Your task to perform on an android device: turn on priority inbox in the gmail app Image 0: 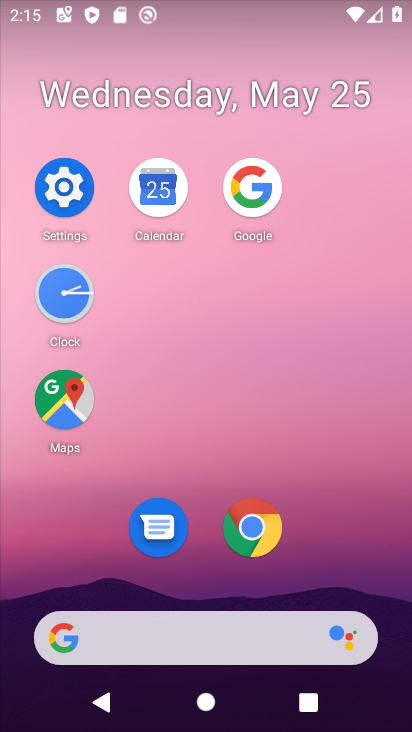
Step 0: drag from (349, 526) to (322, 206)
Your task to perform on an android device: turn on priority inbox in the gmail app Image 1: 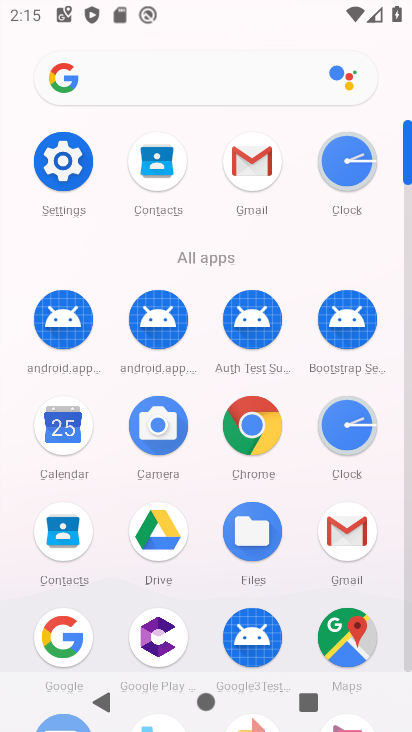
Step 1: drag from (254, 171) to (144, 285)
Your task to perform on an android device: turn on priority inbox in the gmail app Image 2: 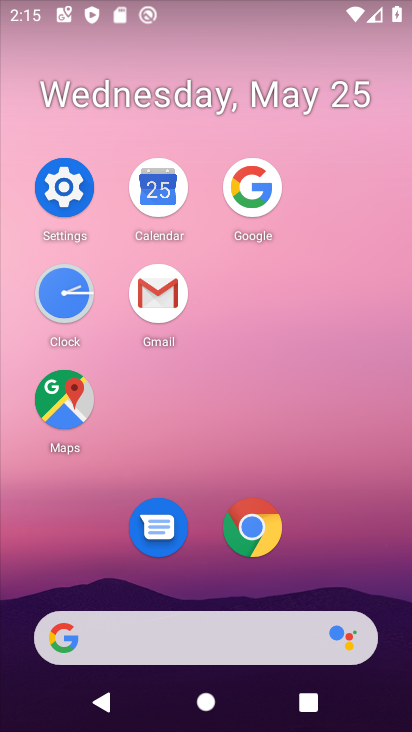
Step 2: click (140, 290)
Your task to perform on an android device: turn on priority inbox in the gmail app Image 3: 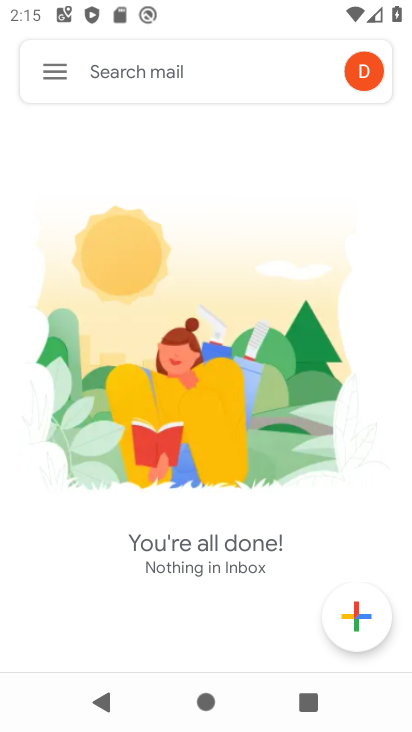
Step 3: click (66, 78)
Your task to perform on an android device: turn on priority inbox in the gmail app Image 4: 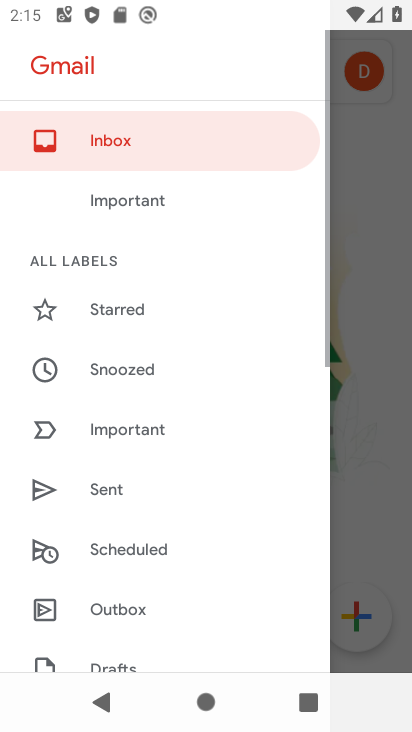
Step 4: drag from (191, 576) to (169, 238)
Your task to perform on an android device: turn on priority inbox in the gmail app Image 5: 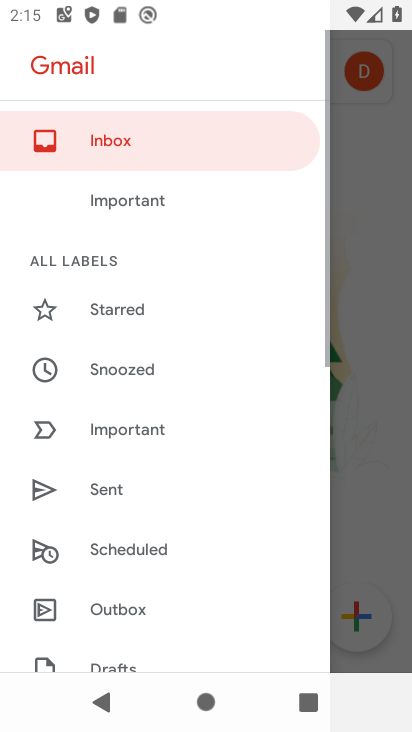
Step 5: drag from (200, 578) to (243, 251)
Your task to perform on an android device: turn on priority inbox in the gmail app Image 6: 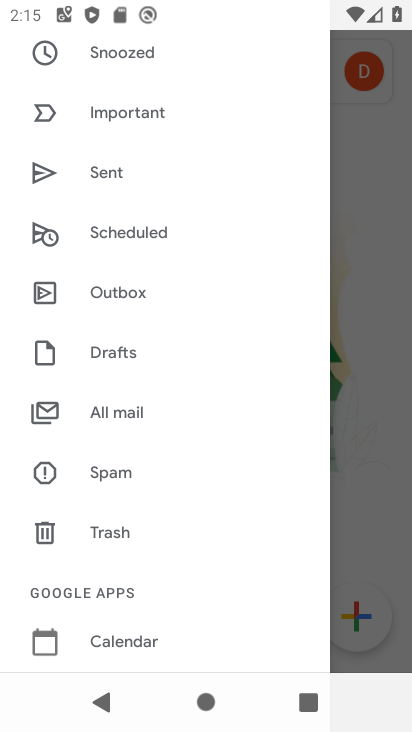
Step 6: drag from (236, 560) to (248, 178)
Your task to perform on an android device: turn on priority inbox in the gmail app Image 7: 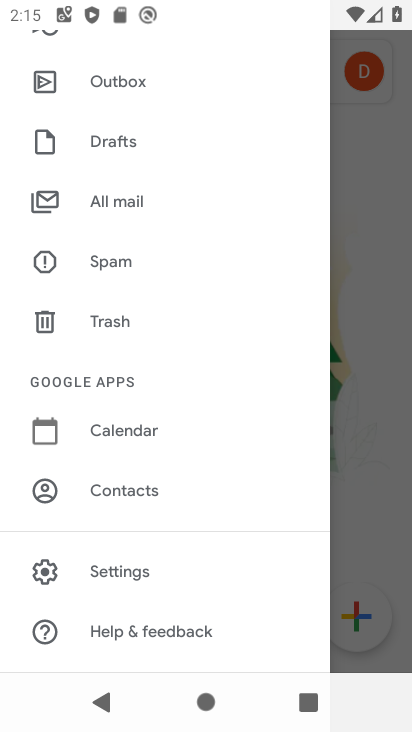
Step 7: click (152, 576)
Your task to perform on an android device: turn on priority inbox in the gmail app Image 8: 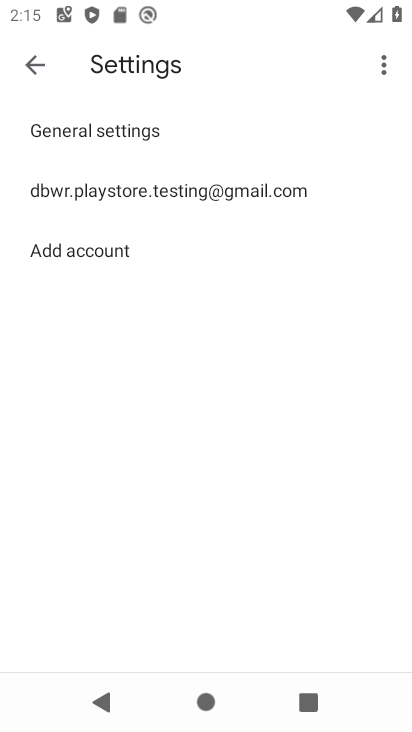
Step 8: click (184, 198)
Your task to perform on an android device: turn on priority inbox in the gmail app Image 9: 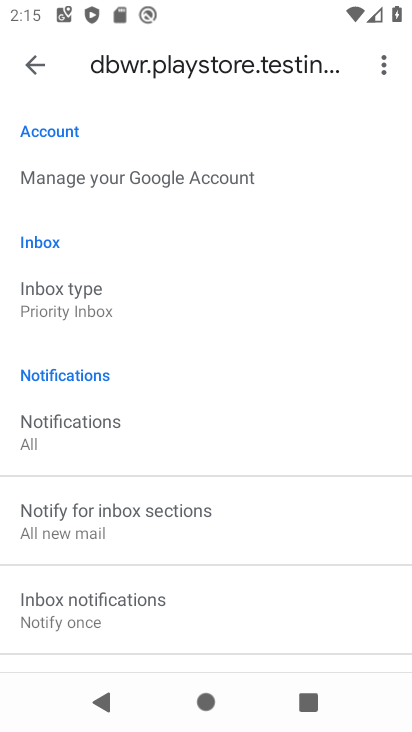
Step 9: task complete